Your task to perform on an android device: Find coffee shops on Maps Image 0: 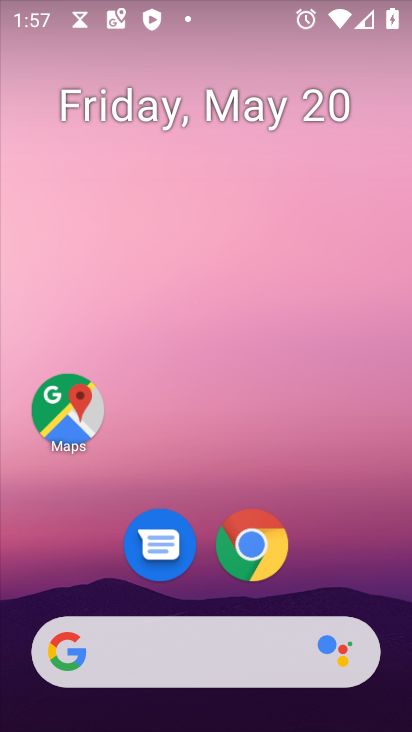
Step 0: click (80, 401)
Your task to perform on an android device: Find coffee shops on Maps Image 1: 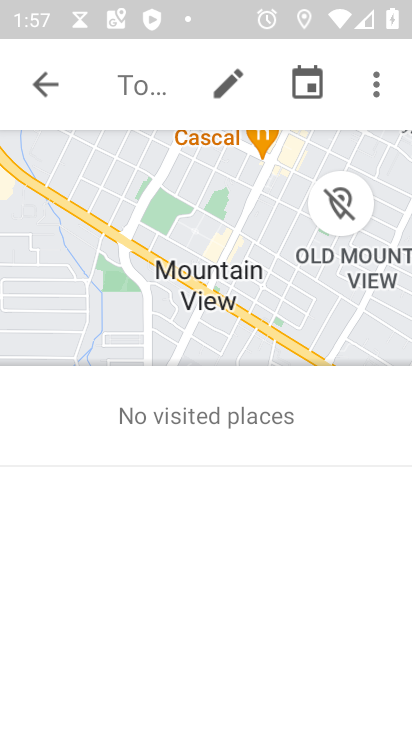
Step 1: click (56, 66)
Your task to perform on an android device: Find coffee shops on Maps Image 2: 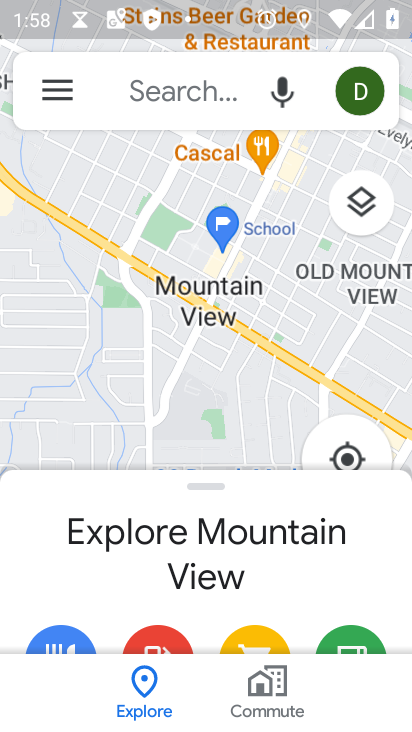
Step 2: click (194, 85)
Your task to perform on an android device: Find coffee shops on Maps Image 3: 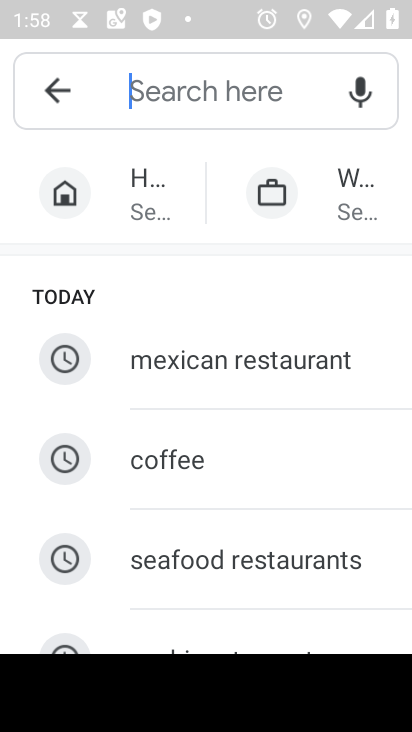
Step 3: type "coffee shops"
Your task to perform on an android device: Find coffee shops on Maps Image 4: 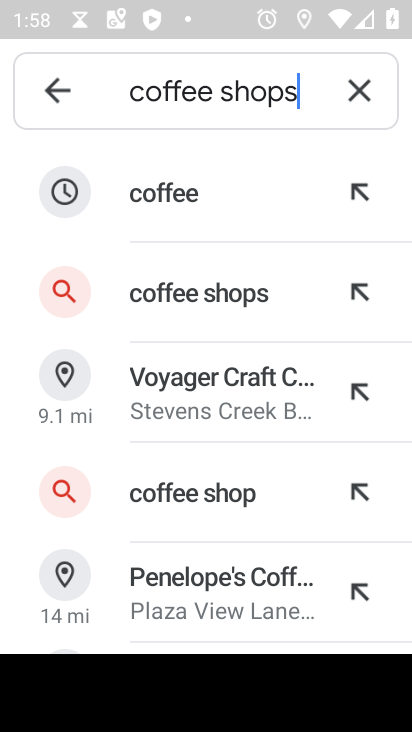
Step 4: click (243, 301)
Your task to perform on an android device: Find coffee shops on Maps Image 5: 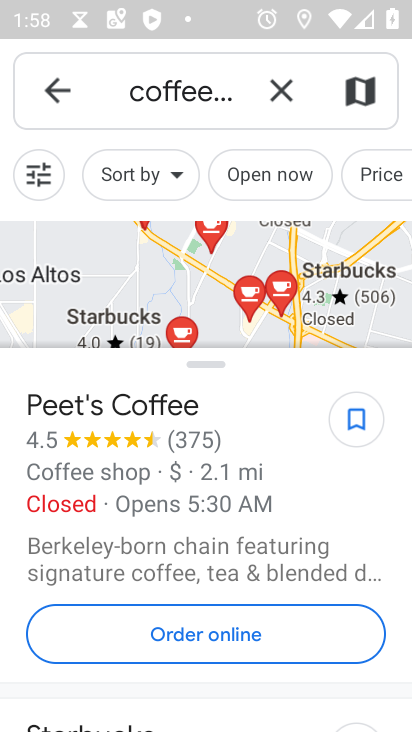
Step 5: task complete